Your task to perform on an android device: Go to Google maps Image 0: 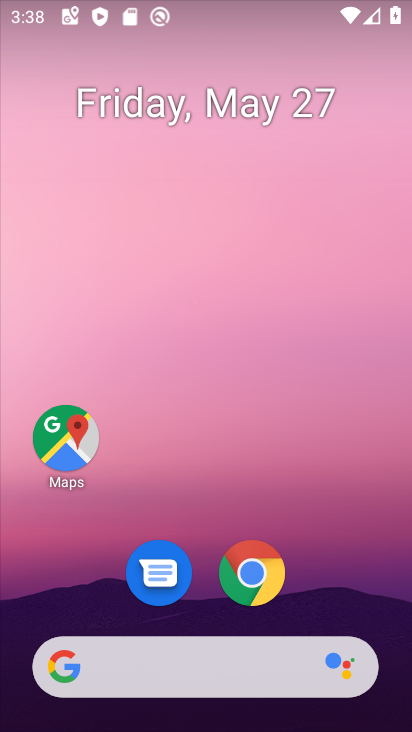
Step 0: click (65, 431)
Your task to perform on an android device: Go to Google maps Image 1: 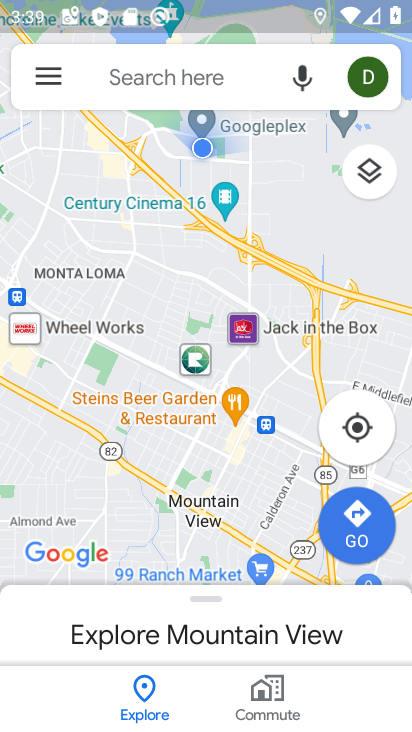
Step 1: task complete